Your task to perform on an android device: Open calendar and show me the third week of next month Image 0: 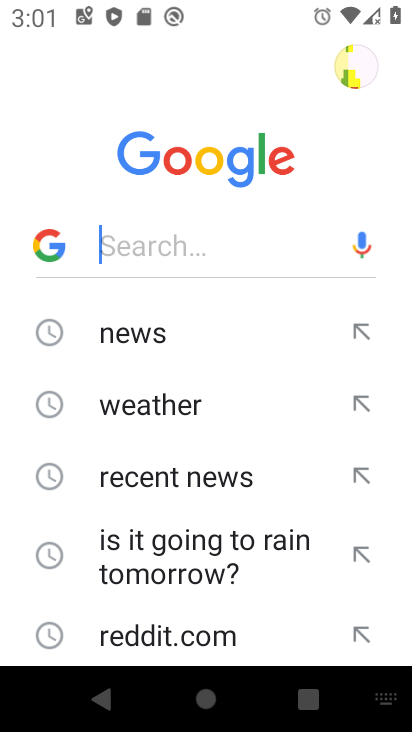
Step 0: press home button
Your task to perform on an android device: Open calendar and show me the third week of next month Image 1: 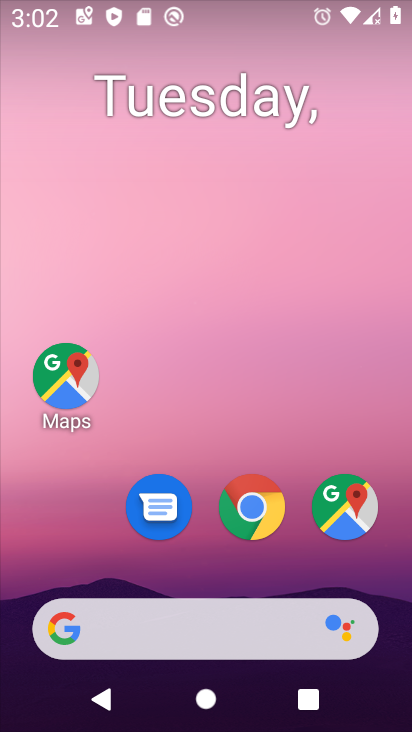
Step 1: drag from (219, 568) to (239, 190)
Your task to perform on an android device: Open calendar and show me the third week of next month Image 2: 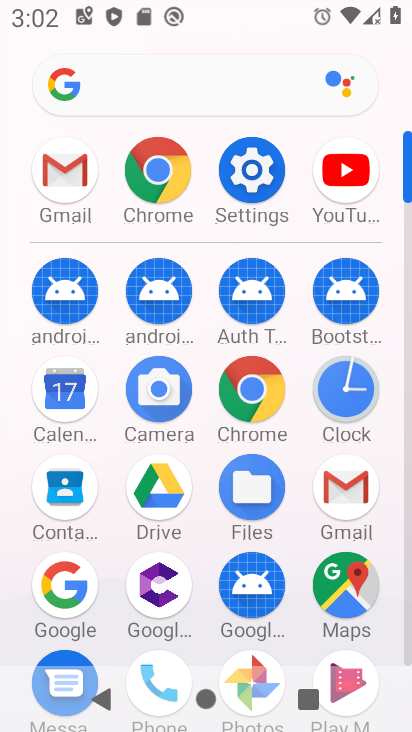
Step 2: click (51, 392)
Your task to perform on an android device: Open calendar and show me the third week of next month Image 3: 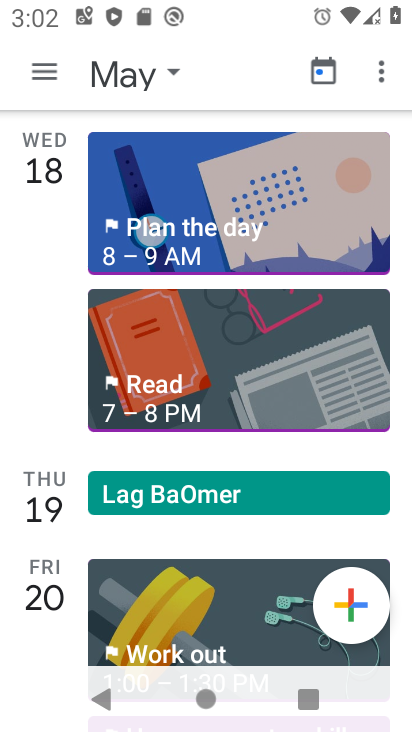
Step 3: click (49, 67)
Your task to perform on an android device: Open calendar and show me the third week of next month Image 4: 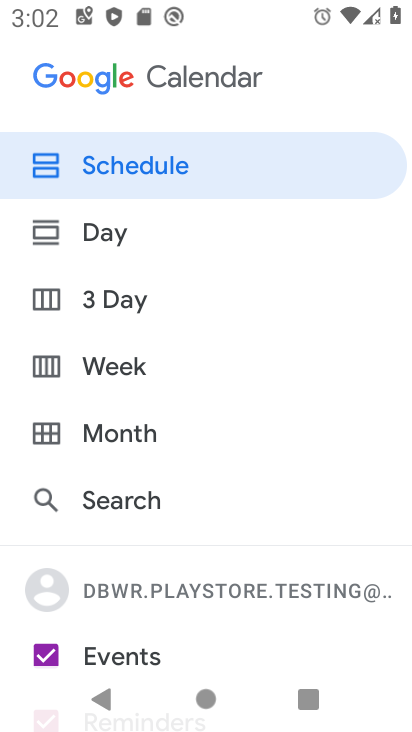
Step 4: click (122, 432)
Your task to perform on an android device: Open calendar and show me the third week of next month Image 5: 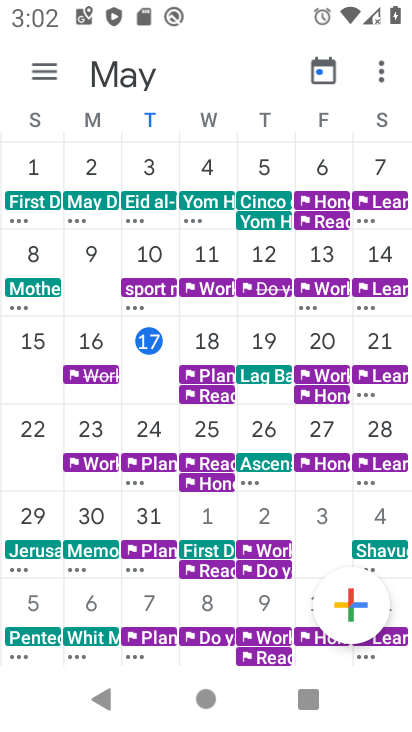
Step 5: task complete